Your task to perform on an android device: Toggle the flashlight Image 0: 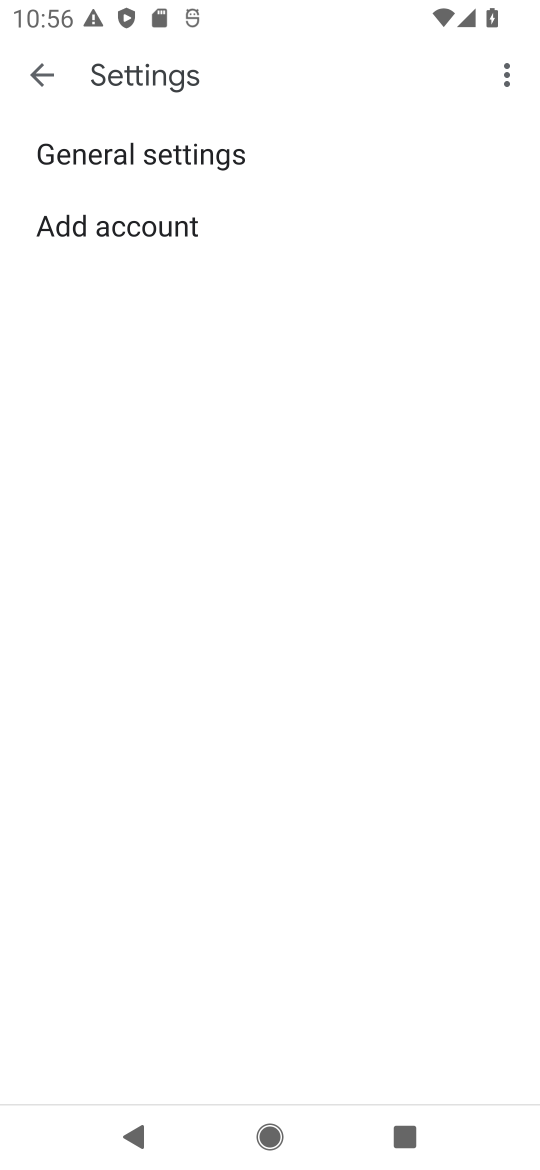
Step 0: drag from (348, 0) to (317, 577)
Your task to perform on an android device: Toggle the flashlight Image 1: 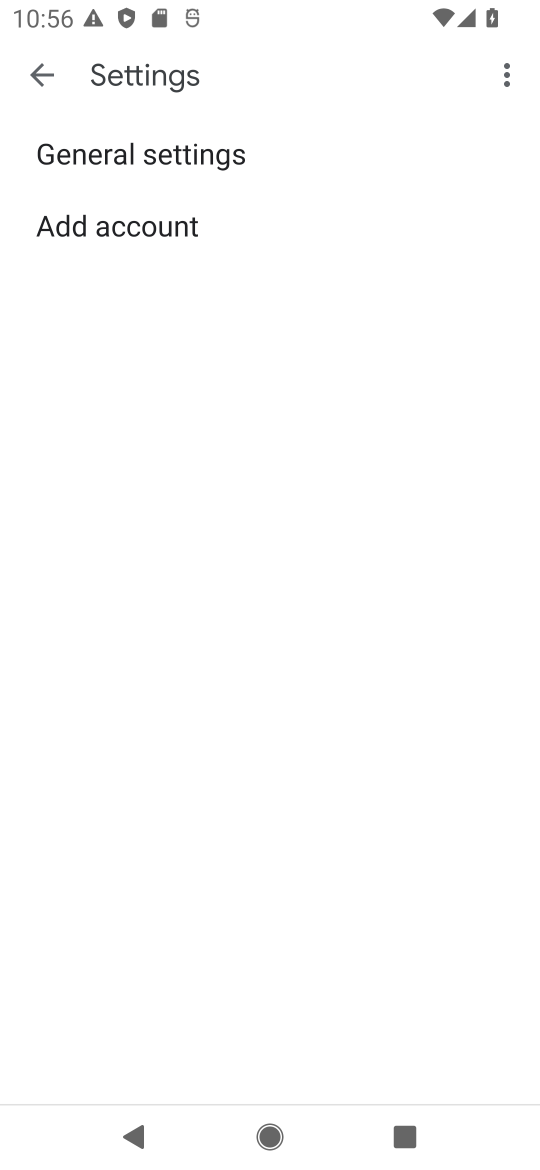
Step 1: task complete